Your task to perform on an android device: Is it going to rain today? Image 0: 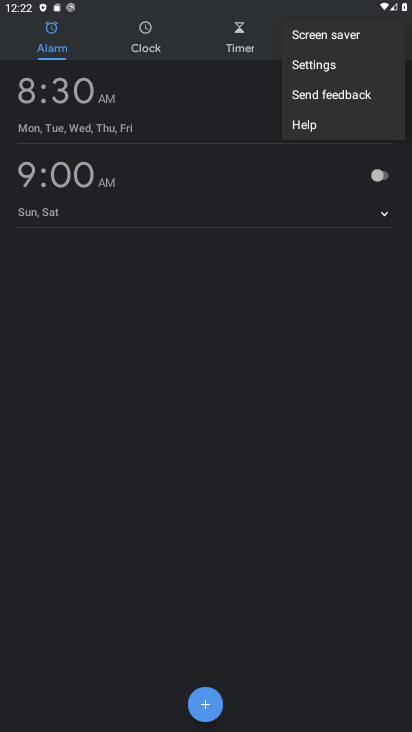
Step 0: press home button
Your task to perform on an android device: Is it going to rain today? Image 1: 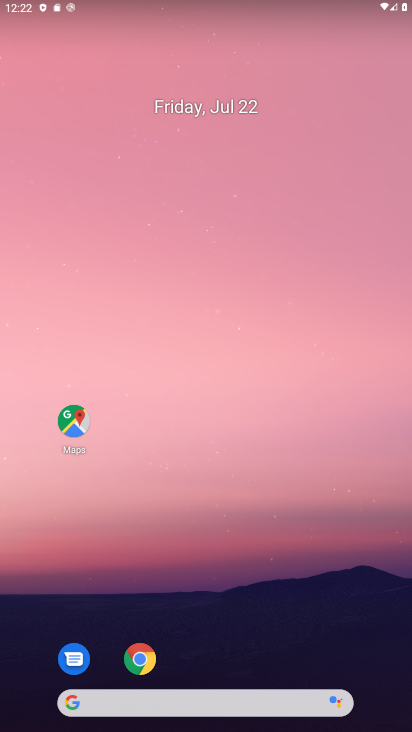
Step 1: click (235, 691)
Your task to perform on an android device: Is it going to rain today? Image 2: 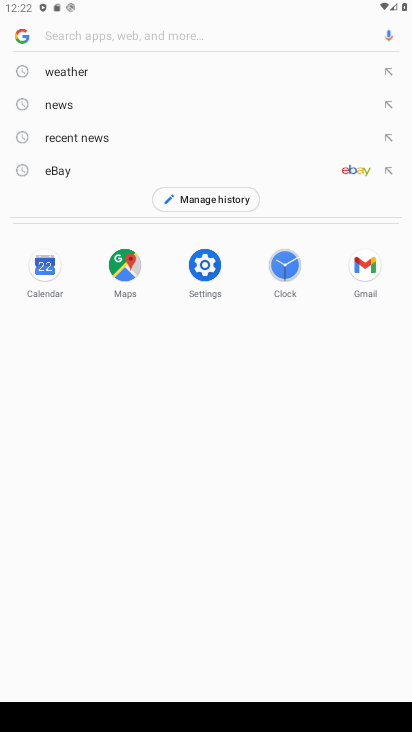
Step 2: type "rain"
Your task to perform on an android device: Is it going to rain today? Image 3: 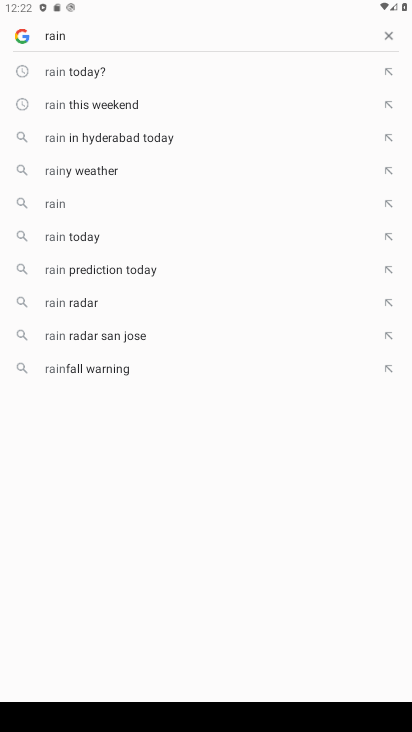
Step 3: click (136, 77)
Your task to perform on an android device: Is it going to rain today? Image 4: 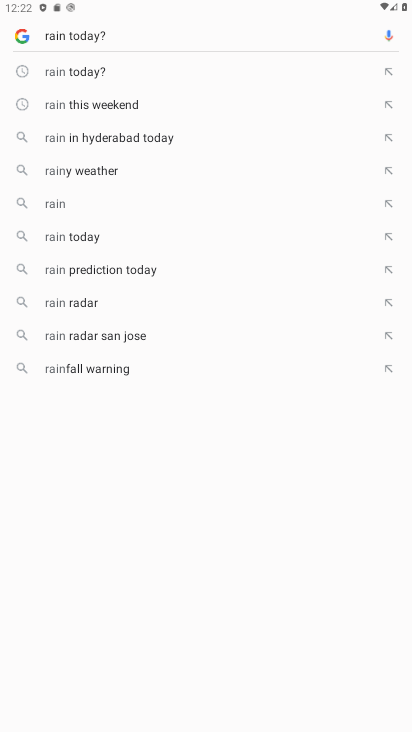
Step 4: task complete